Your task to perform on an android device: Go to display settings Image 0: 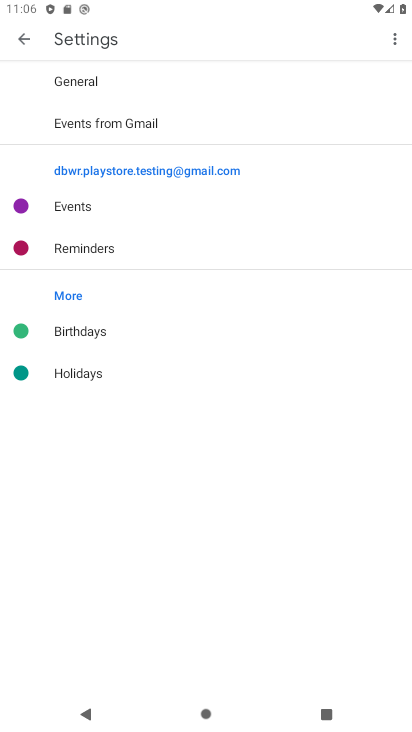
Step 0: press back button
Your task to perform on an android device: Go to display settings Image 1: 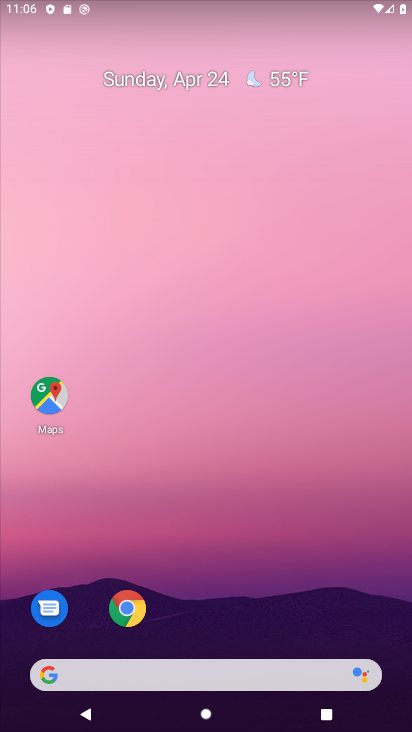
Step 1: drag from (201, 613) to (284, 52)
Your task to perform on an android device: Go to display settings Image 2: 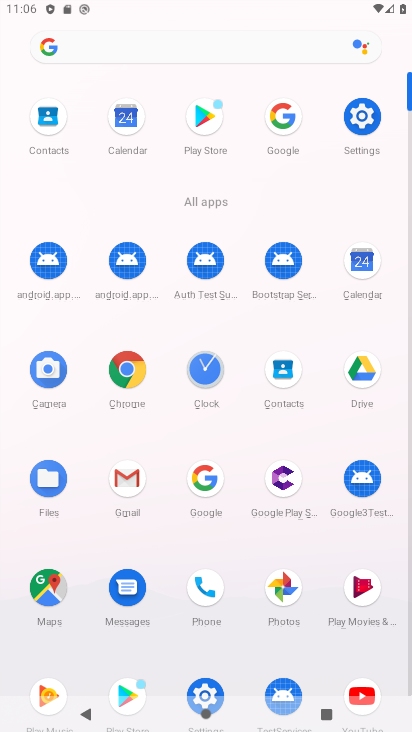
Step 2: click (363, 113)
Your task to perform on an android device: Go to display settings Image 3: 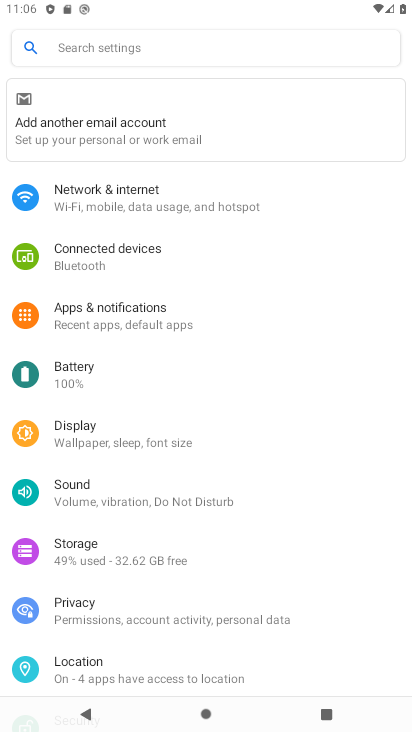
Step 3: click (98, 431)
Your task to perform on an android device: Go to display settings Image 4: 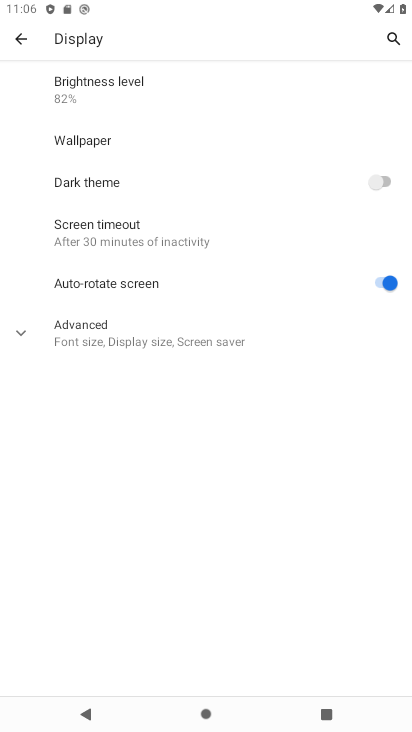
Step 4: task complete